Your task to perform on an android device: add a contact in the contacts app Image 0: 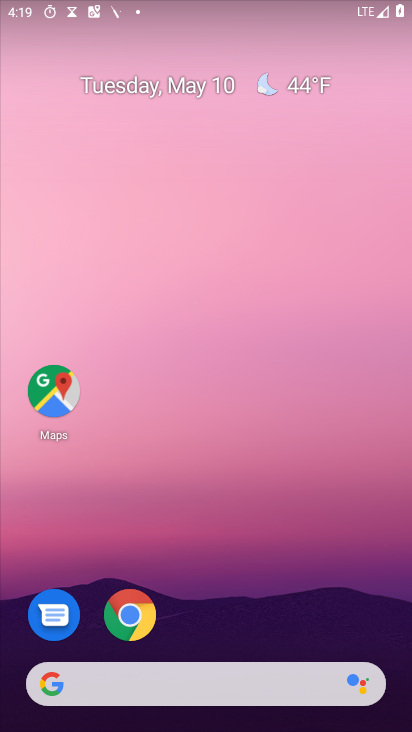
Step 0: drag from (340, 653) to (288, 91)
Your task to perform on an android device: add a contact in the contacts app Image 1: 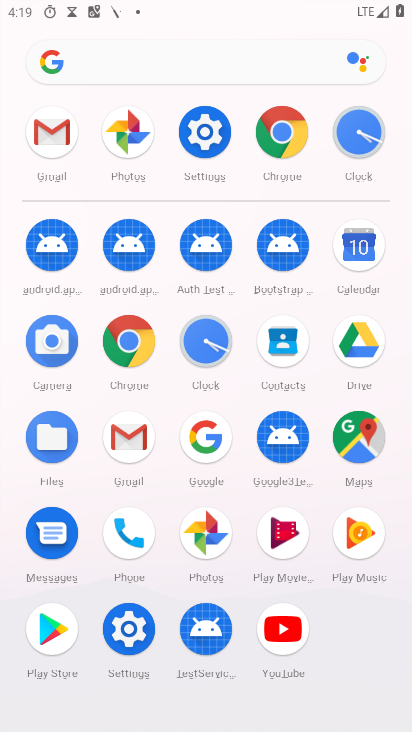
Step 1: click (295, 345)
Your task to perform on an android device: add a contact in the contacts app Image 2: 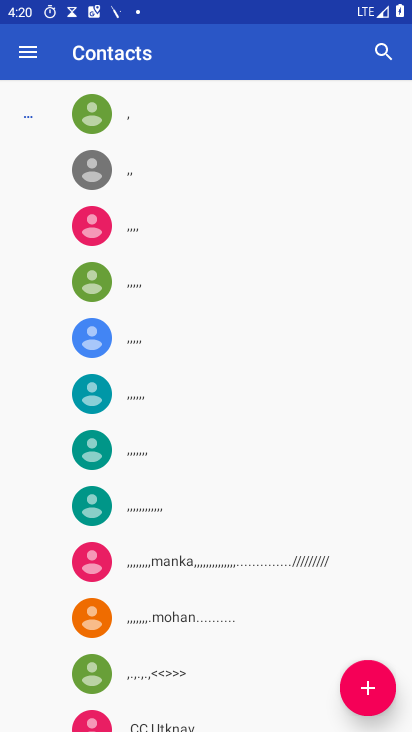
Step 2: click (370, 697)
Your task to perform on an android device: add a contact in the contacts app Image 3: 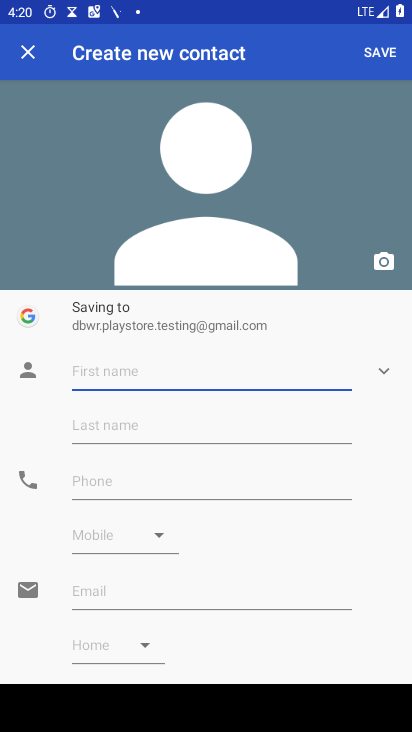
Step 3: click (300, 366)
Your task to perform on an android device: add a contact in the contacts app Image 4: 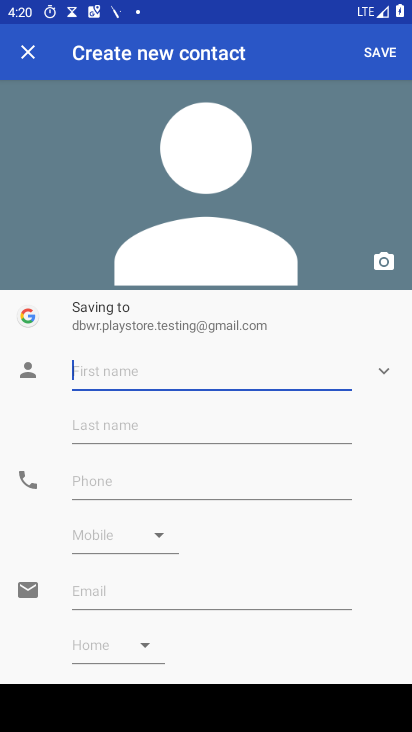
Step 4: type "gdfhfjgjgjgj"
Your task to perform on an android device: add a contact in the contacts app Image 5: 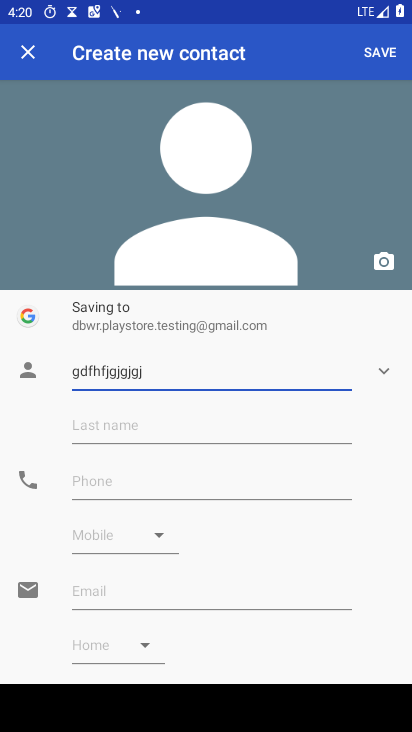
Step 5: click (170, 484)
Your task to perform on an android device: add a contact in the contacts app Image 6: 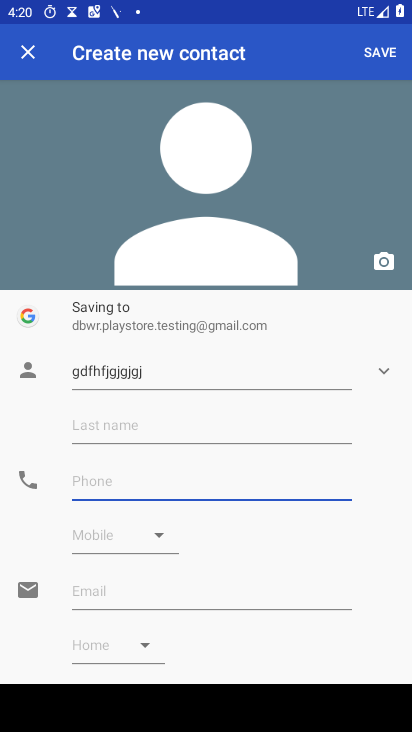
Step 6: type "9877666788"
Your task to perform on an android device: add a contact in the contacts app Image 7: 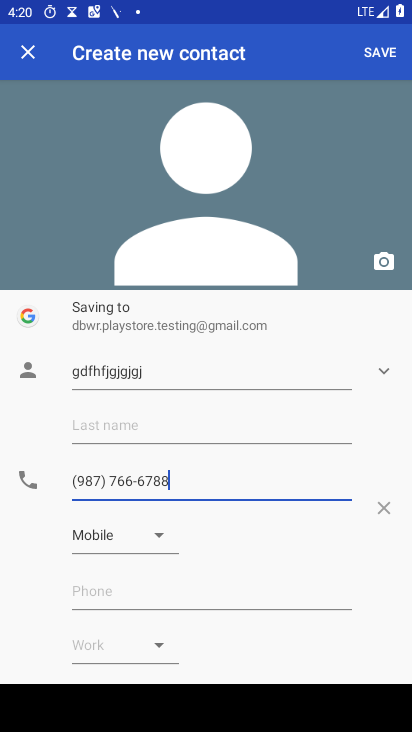
Step 7: click (387, 53)
Your task to perform on an android device: add a contact in the contacts app Image 8: 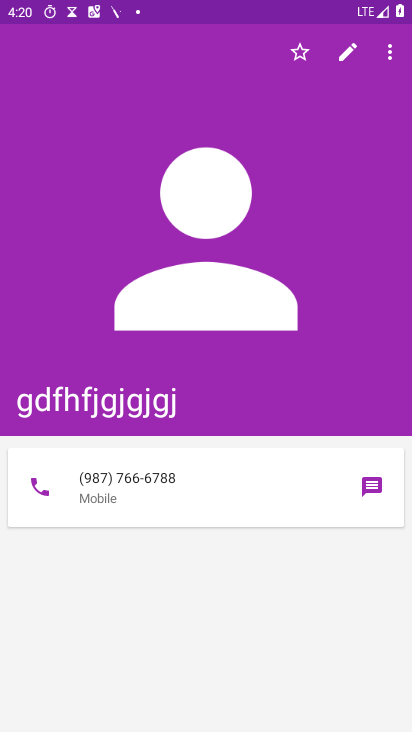
Step 8: task complete